Your task to perform on an android device: set default search engine in the chrome app Image 0: 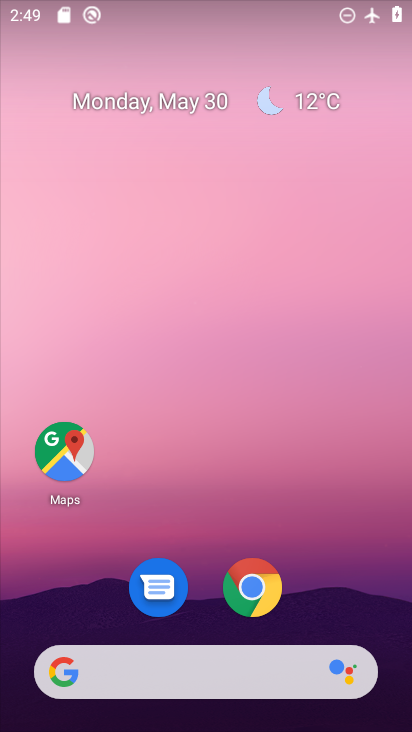
Step 0: click (260, 590)
Your task to perform on an android device: set default search engine in the chrome app Image 1: 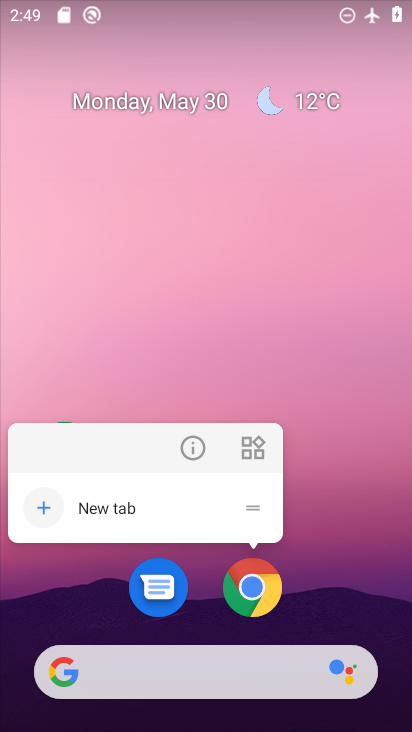
Step 1: click (199, 455)
Your task to perform on an android device: set default search engine in the chrome app Image 2: 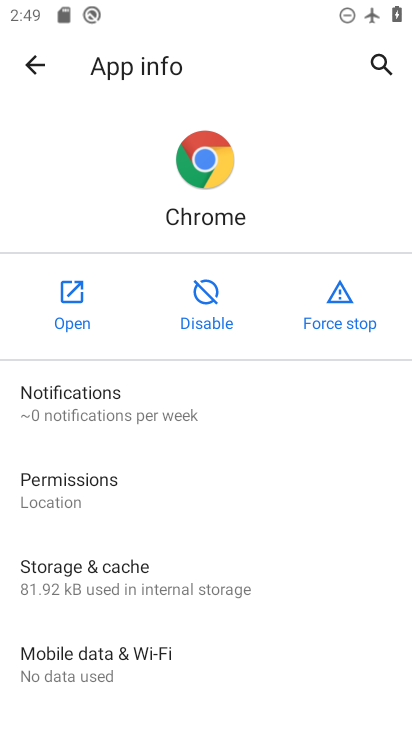
Step 2: click (58, 306)
Your task to perform on an android device: set default search engine in the chrome app Image 3: 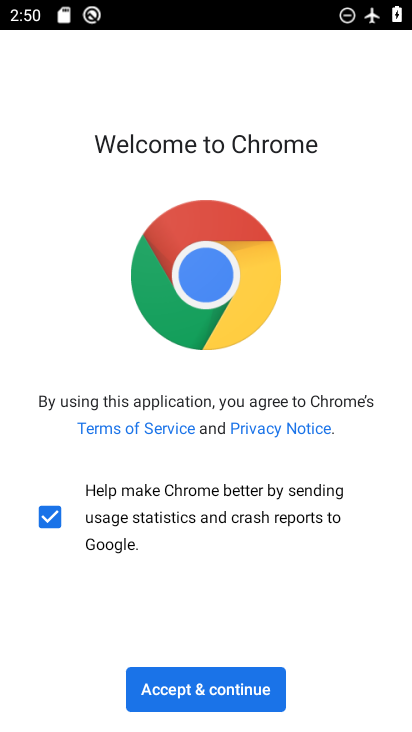
Step 3: click (184, 701)
Your task to perform on an android device: set default search engine in the chrome app Image 4: 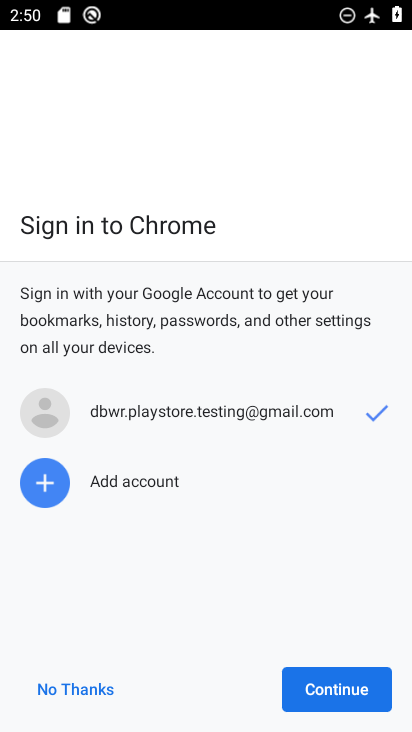
Step 4: click (371, 697)
Your task to perform on an android device: set default search engine in the chrome app Image 5: 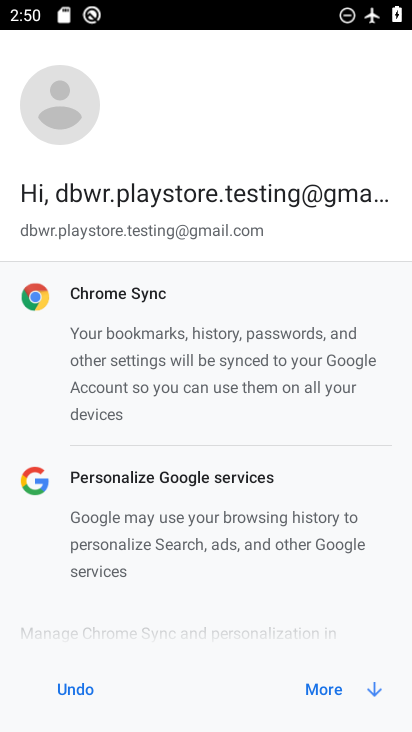
Step 5: click (328, 696)
Your task to perform on an android device: set default search engine in the chrome app Image 6: 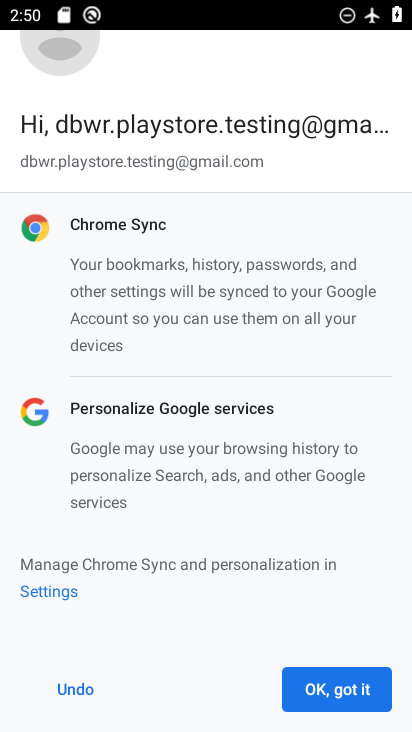
Step 6: click (354, 691)
Your task to perform on an android device: set default search engine in the chrome app Image 7: 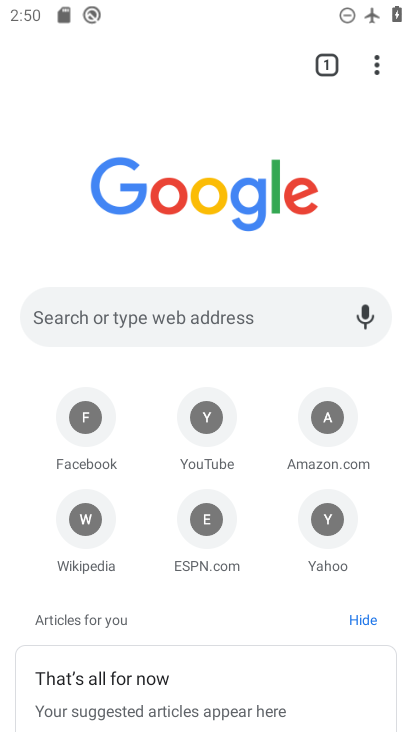
Step 7: click (379, 65)
Your task to perform on an android device: set default search engine in the chrome app Image 8: 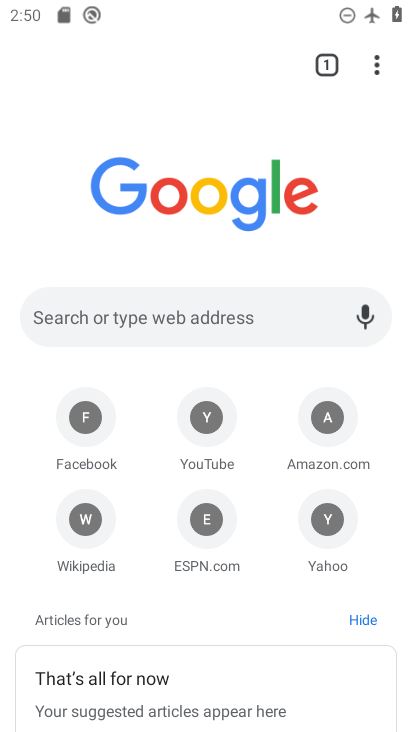
Step 8: click (376, 67)
Your task to perform on an android device: set default search engine in the chrome app Image 9: 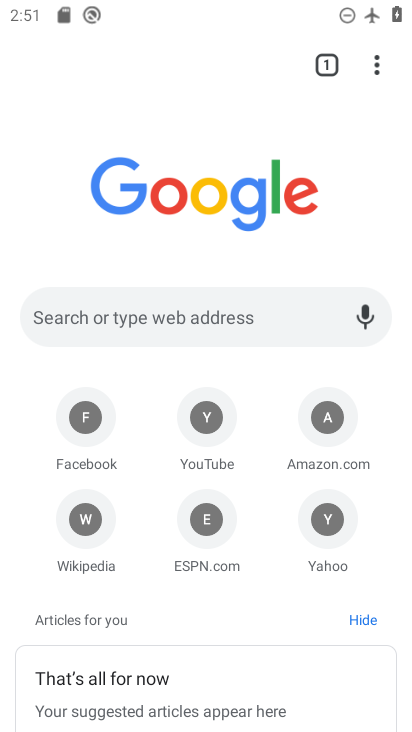
Step 9: click (375, 75)
Your task to perform on an android device: set default search engine in the chrome app Image 10: 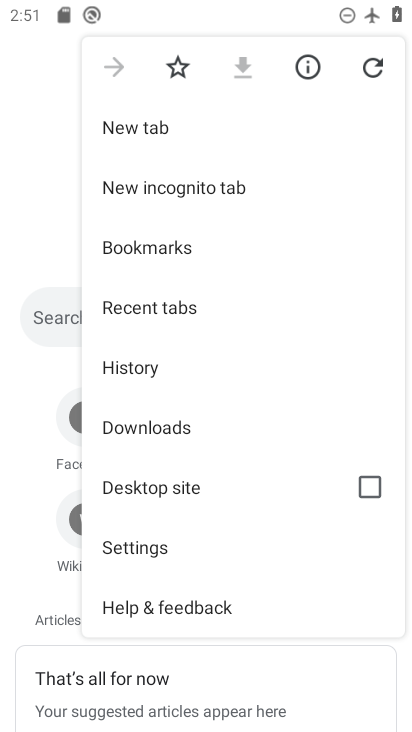
Step 10: click (146, 553)
Your task to perform on an android device: set default search engine in the chrome app Image 11: 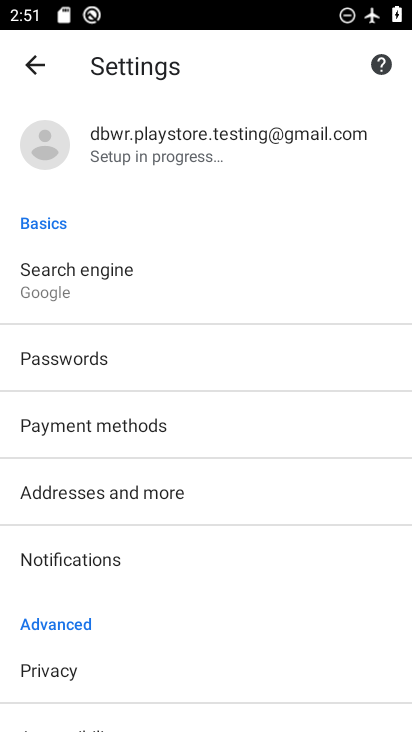
Step 11: click (92, 283)
Your task to perform on an android device: set default search engine in the chrome app Image 12: 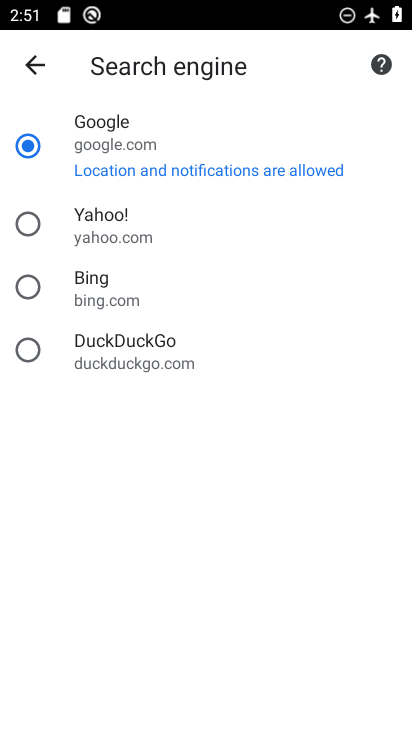
Step 12: task complete